Your task to perform on an android device: turn smart compose on in the gmail app Image 0: 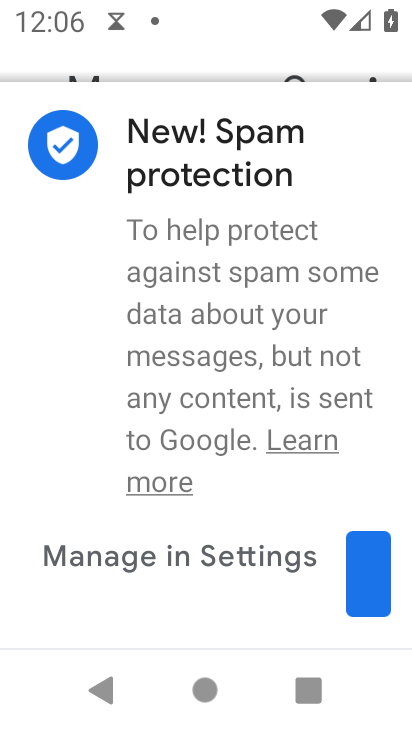
Step 0: press home button
Your task to perform on an android device: turn smart compose on in the gmail app Image 1: 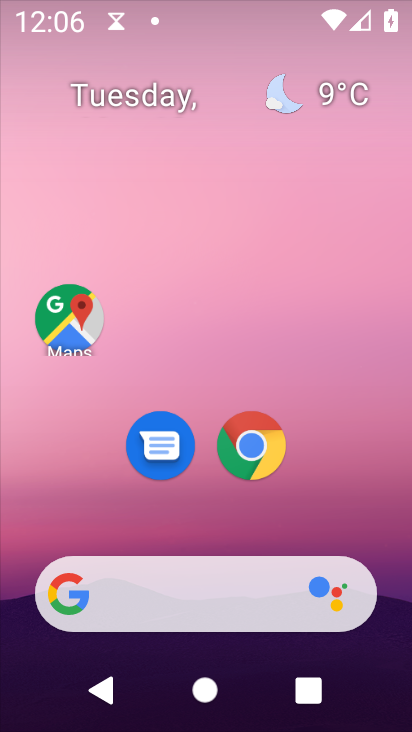
Step 1: drag from (185, 628) to (78, 31)
Your task to perform on an android device: turn smart compose on in the gmail app Image 2: 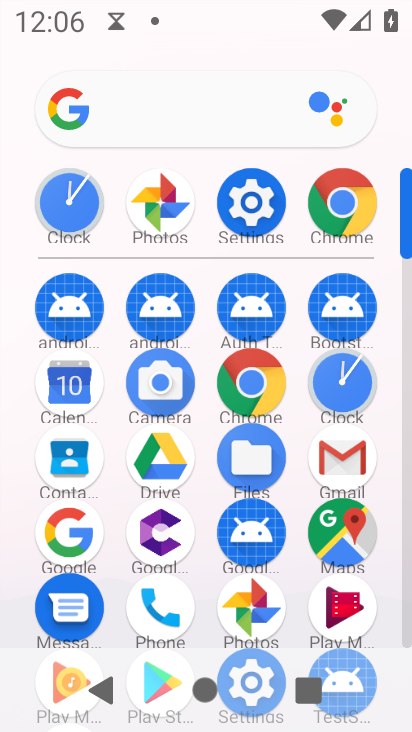
Step 2: click (328, 457)
Your task to perform on an android device: turn smart compose on in the gmail app Image 3: 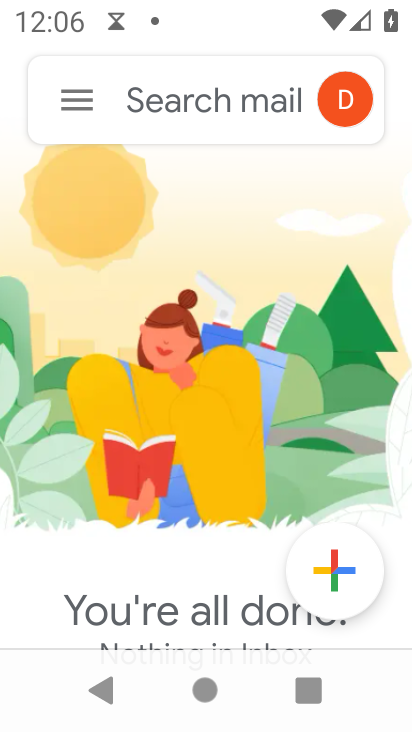
Step 3: click (93, 82)
Your task to perform on an android device: turn smart compose on in the gmail app Image 4: 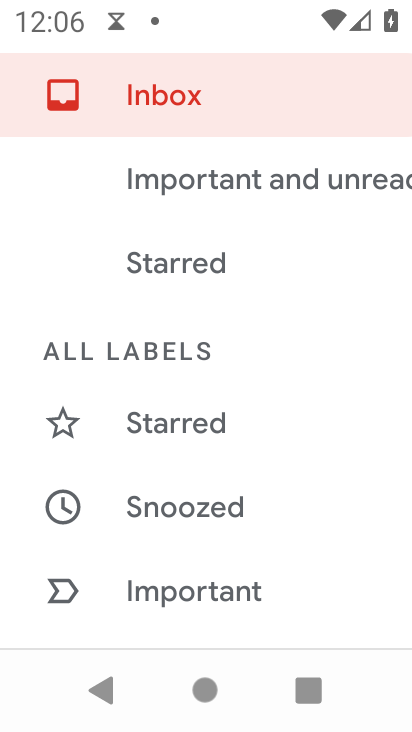
Step 4: drag from (383, 603) to (342, 122)
Your task to perform on an android device: turn smart compose on in the gmail app Image 5: 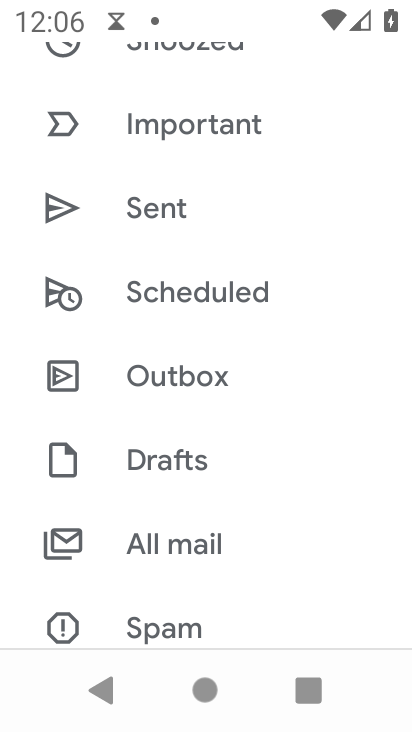
Step 5: drag from (258, 613) to (248, 162)
Your task to perform on an android device: turn smart compose on in the gmail app Image 6: 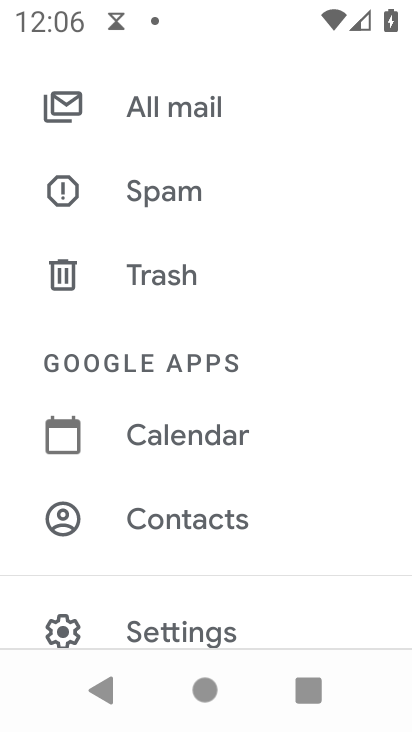
Step 6: drag from (284, 628) to (282, 320)
Your task to perform on an android device: turn smart compose on in the gmail app Image 7: 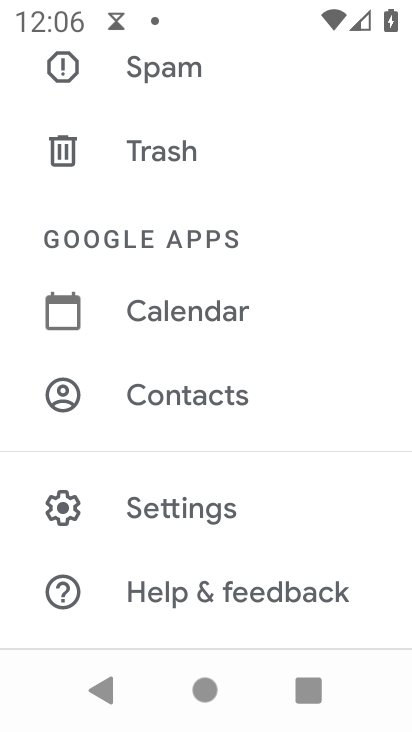
Step 7: click (198, 506)
Your task to perform on an android device: turn smart compose on in the gmail app Image 8: 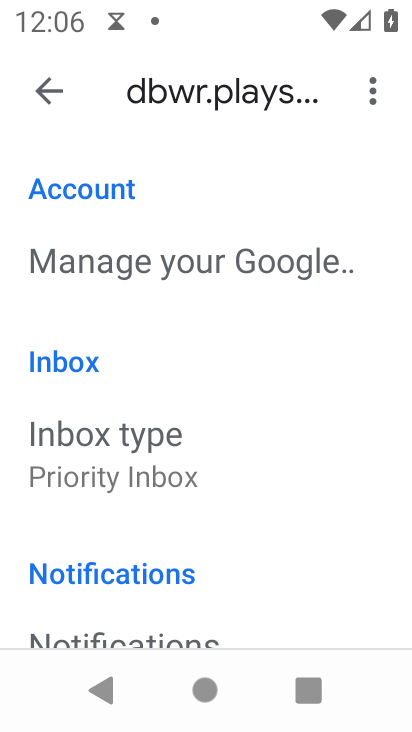
Step 8: task complete